Your task to perform on an android device: Open the map Image 0: 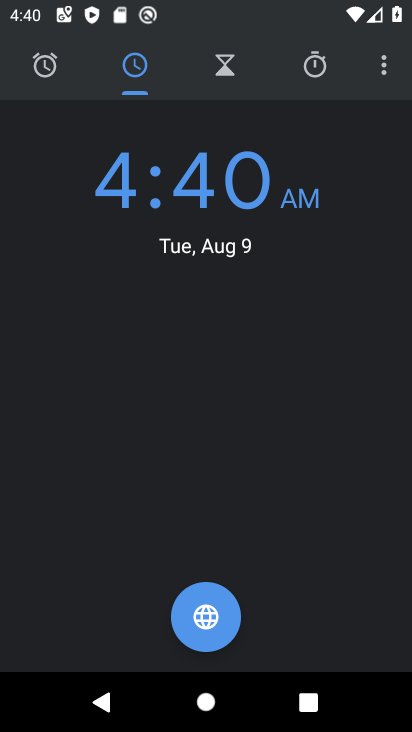
Step 0: press home button
Your task to perform on an android device: Open the map Image 1: 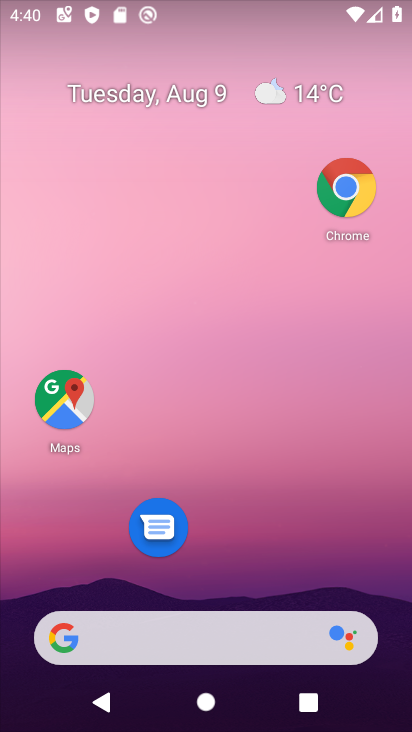
Step 1: click (72, 375)
Your task to perform on an android device: Open the map Image 2: 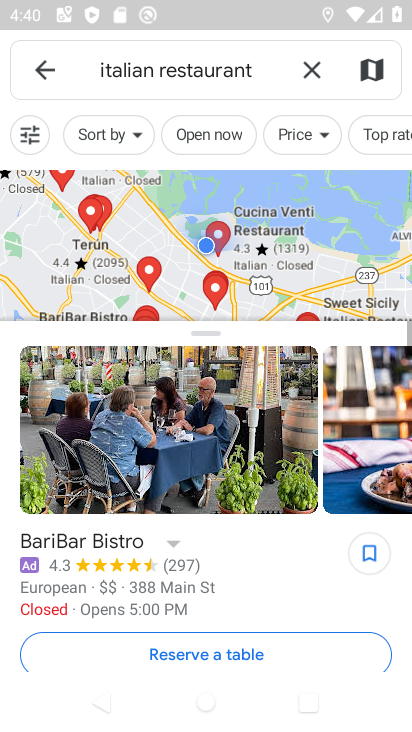
Step 2: task complete